Your task to perform on an android device: find photos in the google photos app Image 0: 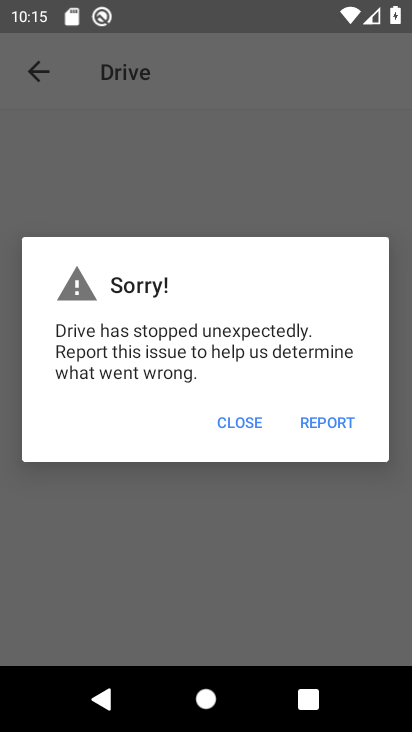
Step 0: press home button
Your task to perform on an android device: find photos in the google photos app Image 1: 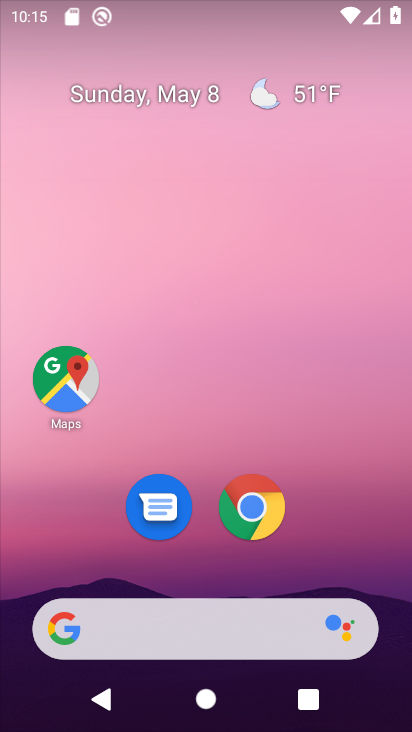
Step 1: drag from (201, 532) to (219, 0)
Your task to perform on an android device: find photos in the google photos app Image 2: 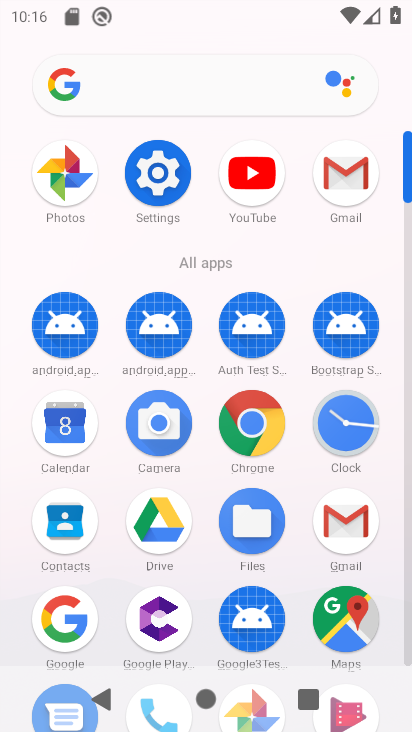
Step 2: drag from (206, 604) to (231, 102)
Your task to perform on an android device: find photos in the google photos app Image 3: 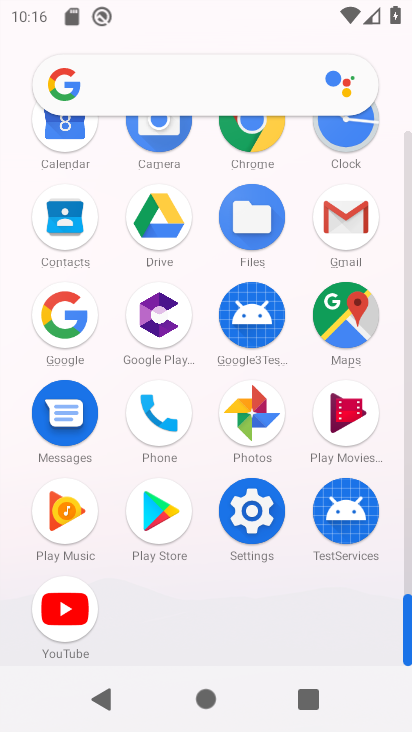
Step 3: click (247, 406)
Your task to perform on an android device: find photos in the google photos app Image 4: 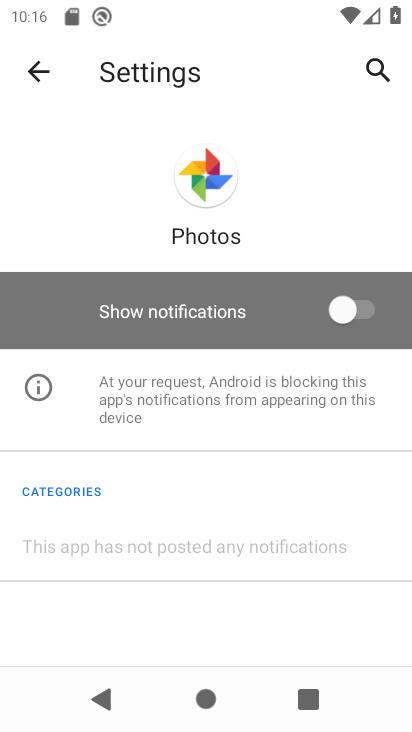
Step 4: click (46, 74)
Your task to perform on an android device: find photos in the google photos app Image 5: 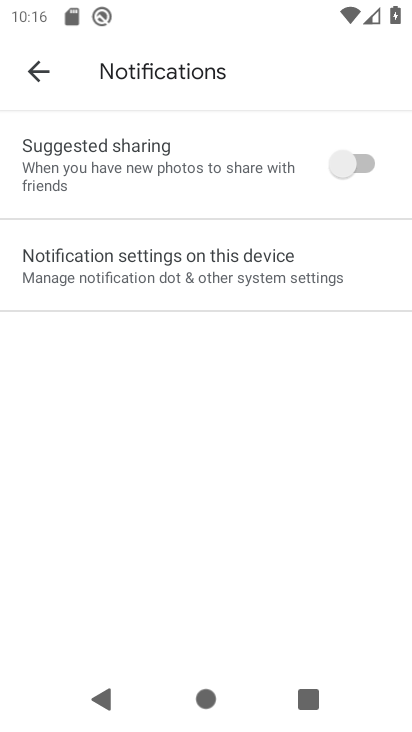
Step 5: click (38, 82)
Your task to perform on an android device: find photos in the google photos app Image 6: 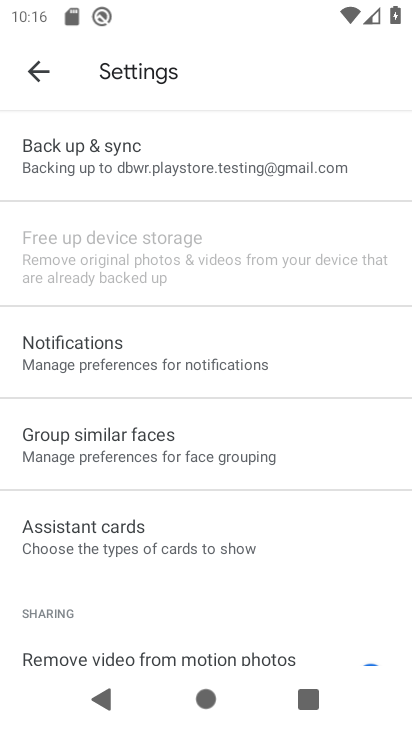
Step 6: click (41, 70)
Your task to perform on an android device: find photos in the google photos app Image 7: 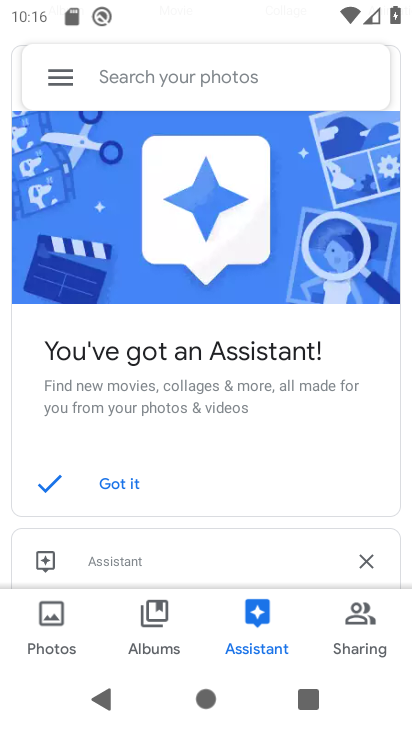
Step 7: click (52, 614)
Your task to perform on an android device: find photos in the google photos app Image 8: 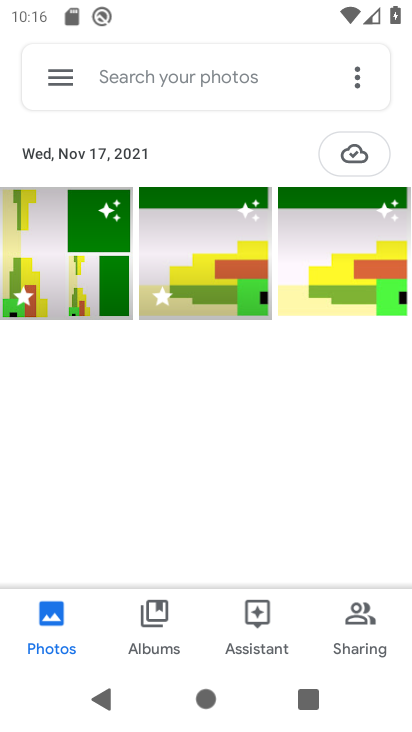
Step 8: click (86, 249)
Your task to perform on an android device: find photos in the google photos app Image 9: 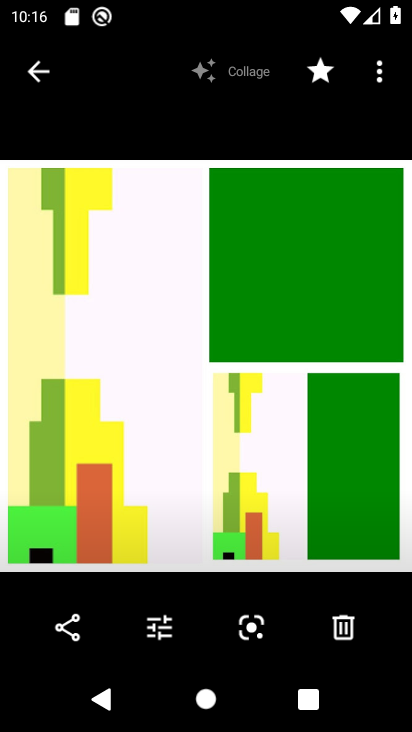
Step 9: task complete